Your task to perform on an android device: Look up the best rated headphones on Aliexpress Image 0: 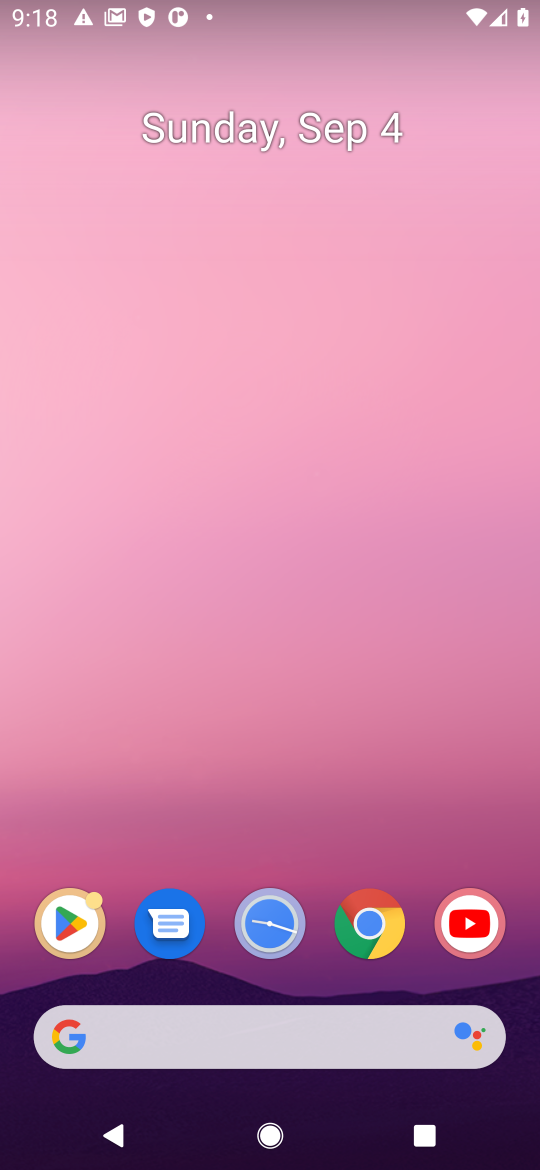
Step 0: press home button
Your task to perform on an android device: Look up the best rated headphones on Aliexpress Image 1: 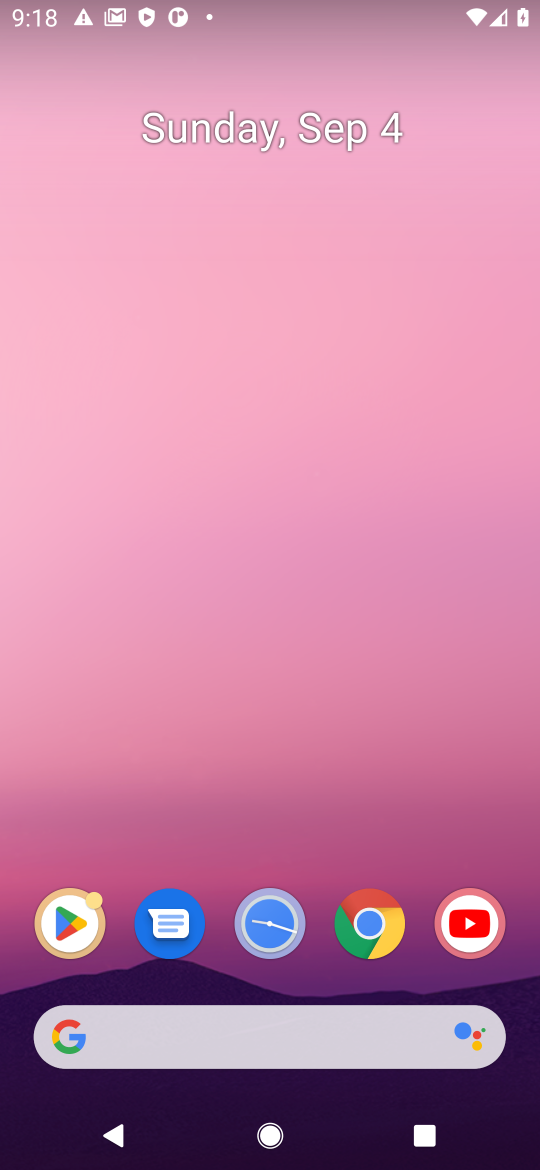
Step 1: click (378, 1034)
Your task to perform on an android device: Look up the best rated headphones on Aliexpress Image 2: 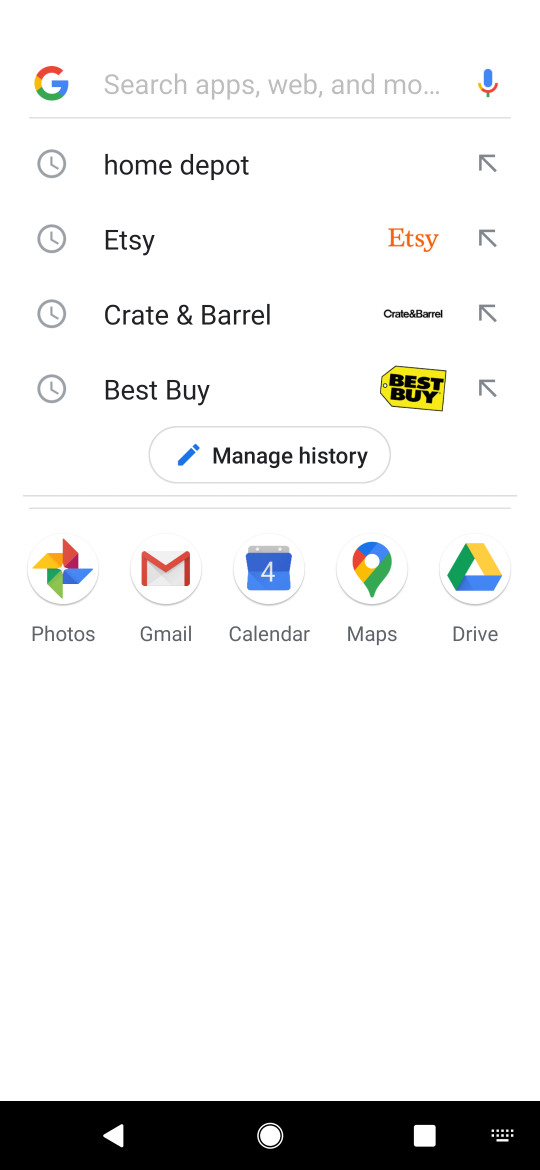
Step 2: press enter
Your task to perform on an android device: Look up the best rated headphones on Aliexpress Image 3: 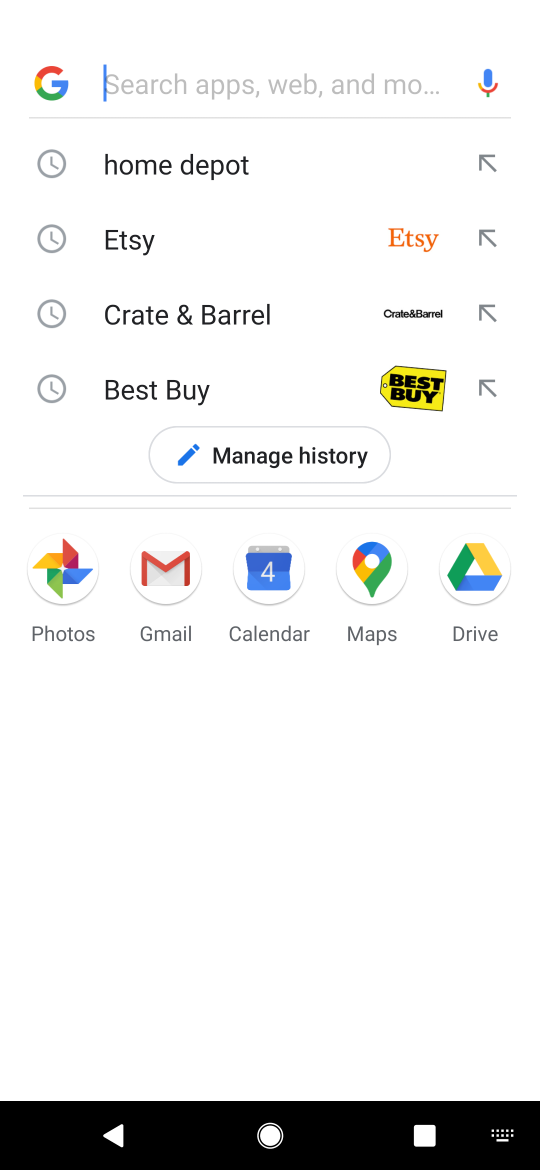
Step 3: type "aliexpress"
Your task to perform on an android device: Look up the best rated headphones on Aliexpress Image 4: 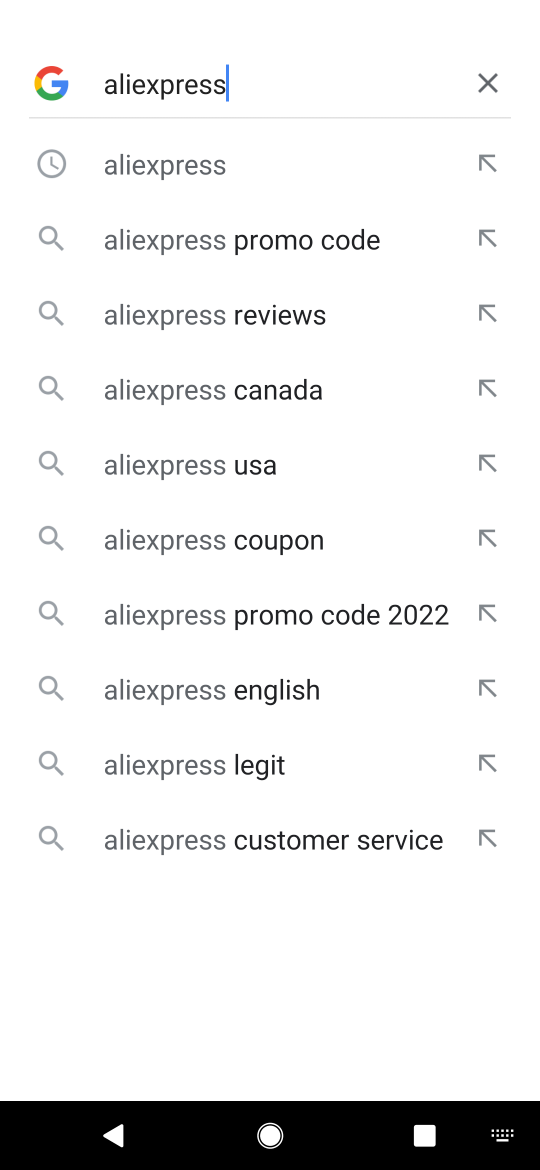
Step 4: click (208, 161)
Your task to perform on an android device: Look up the best rated headphones on Aliexpress Image 5: 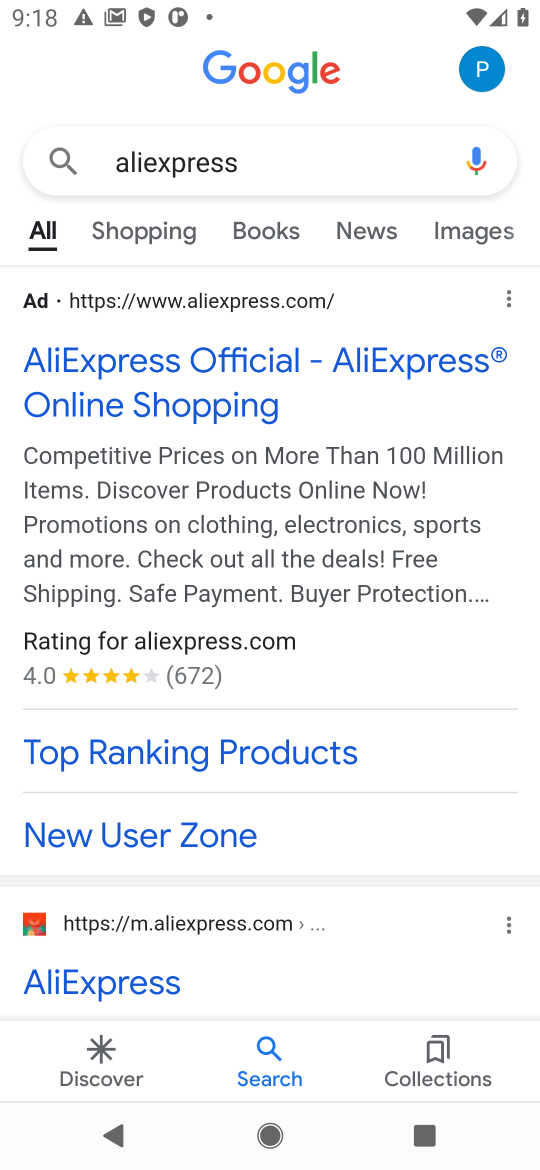
Step 5: click (249, 372)
Your task to perform on an android device: Look up the best rated headphones on Aliexpress Image 6: 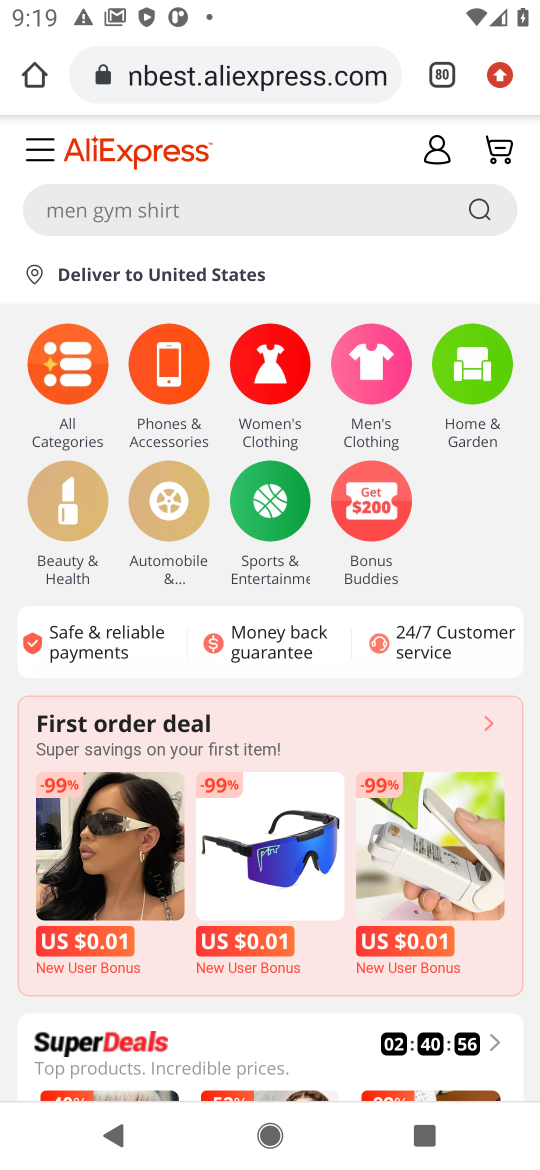
Step 6: click (56, 196)
Your task to perform on an android device: Look up the best rated headphones on Aliexpress Image 7: 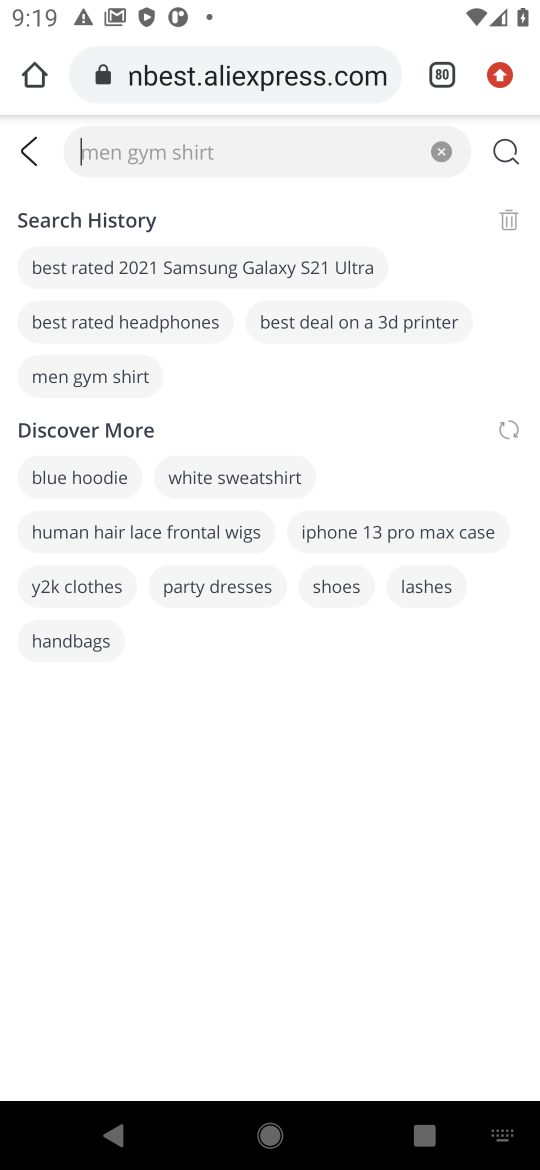
Step 7: type "best rated headphones "
Your task to perform on an android device: Look up the best rated headphones on Aliexpress Image 8: 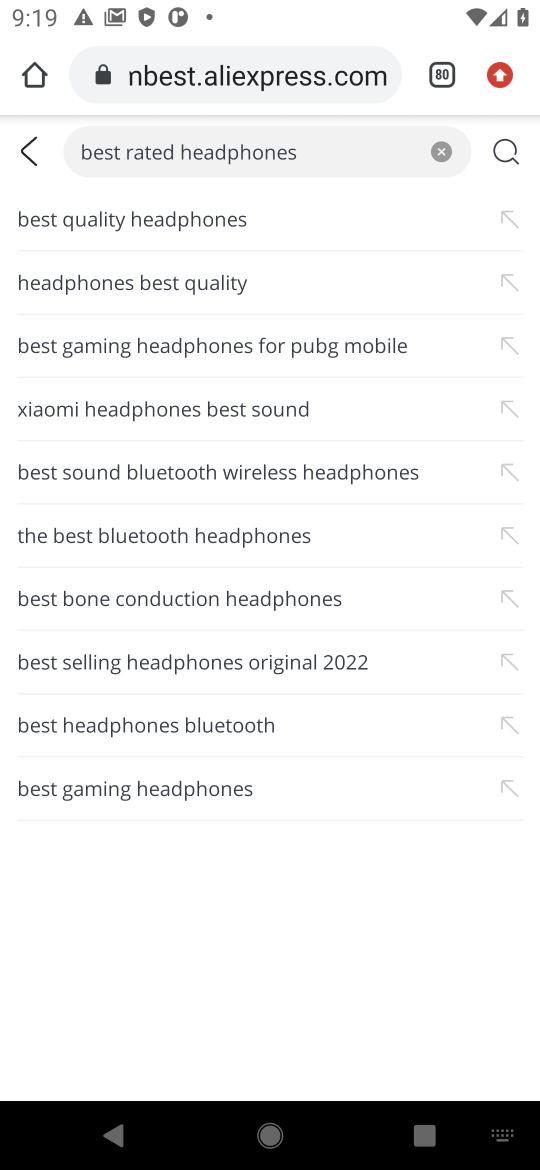
Step 8: click (504, 152)
Your task to perform on an android device: Look up the best rated headphones on Aliexpress Image 9: 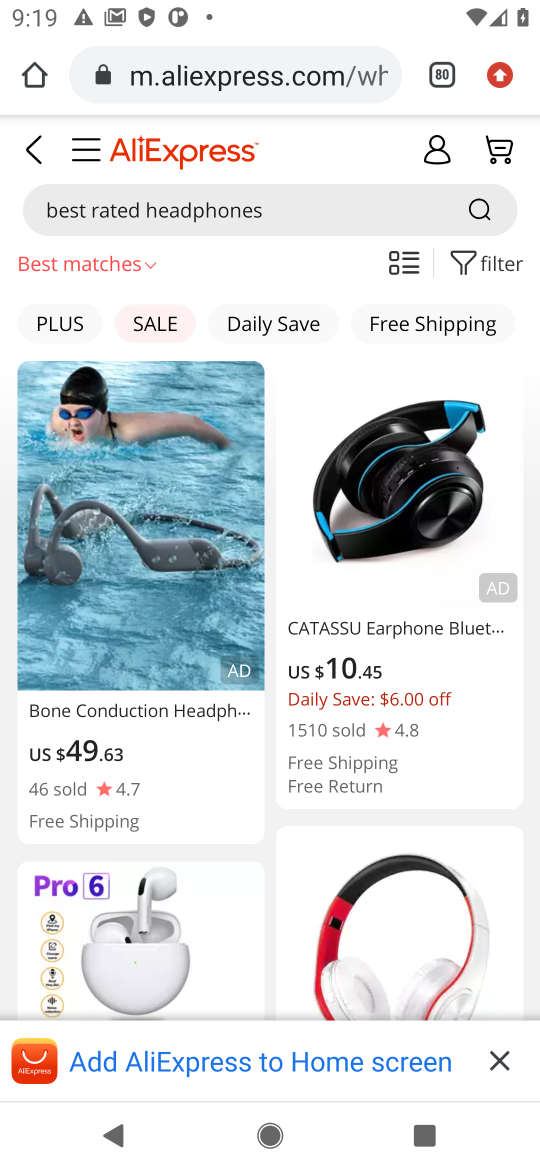
Step 9: task complete